Your task to perform on an android device: Show me productivity apps on the Play Store Image 0: 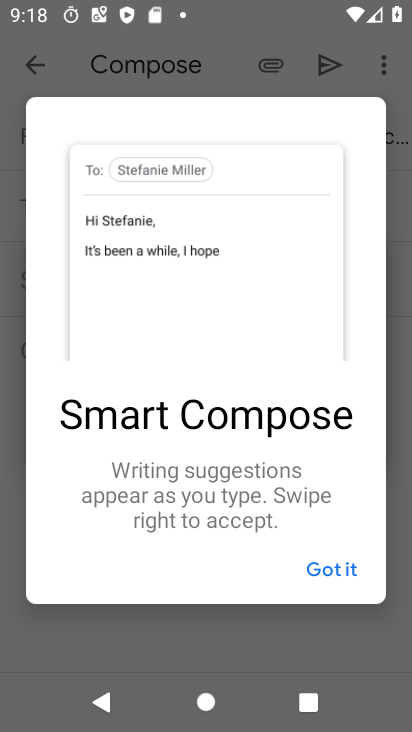
Step 0: press home button
Your task to perform on an android device: Show me productivity apps on the Play Store Image 1: 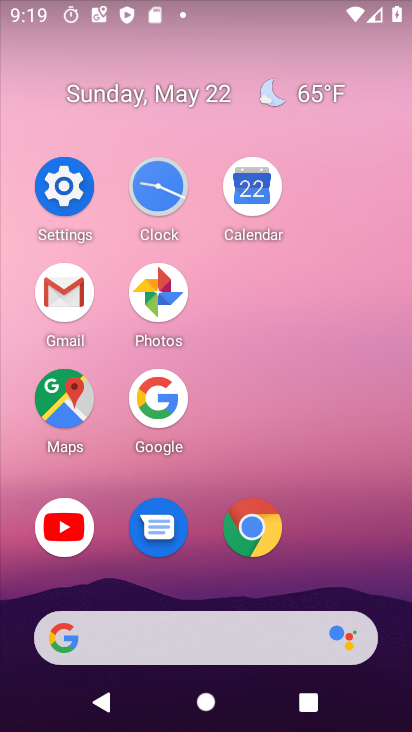
Step 1: drag from (323, 544) to (268, 235)
Your task to perform on an android device: Show me productivity apps on the Play Store Image 2: 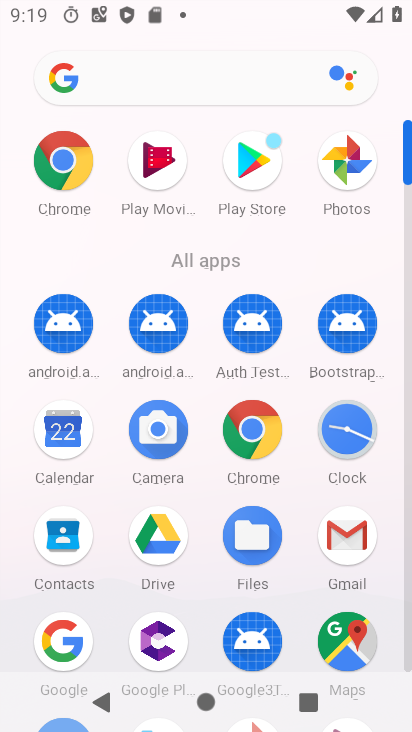
Step 2: drag from (239, 626) to (244, 253)
Your task to perform on an android device: Show me productivity apps on the Play Store Image 3: 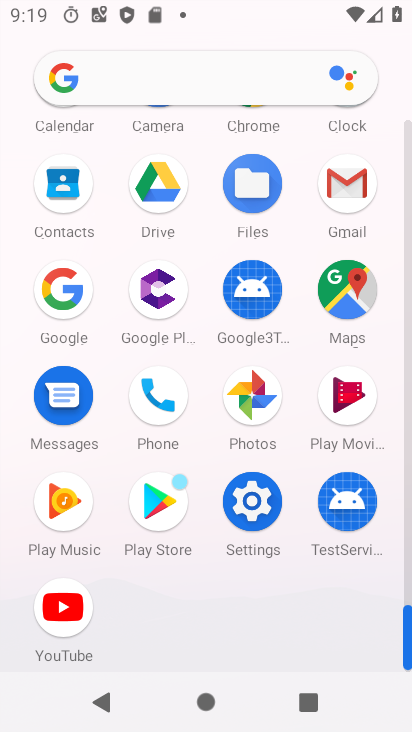
Step 3: drag from (162, 515) to (224, 316)
Your task to perform on an android device: Show me productivity apps on the Play Store Image 4: 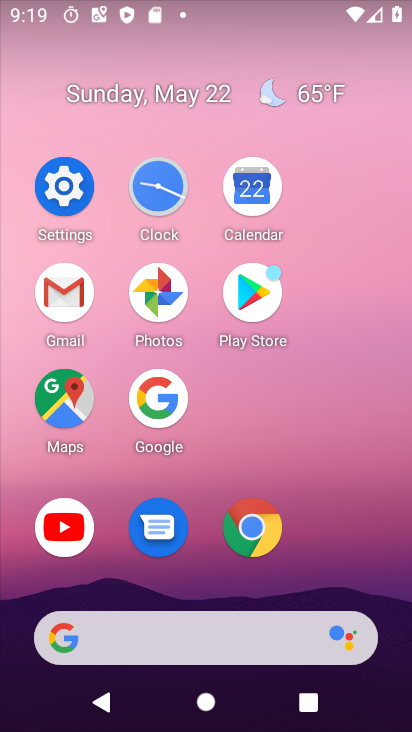
Step 4: click (235, 306)
Your task to perform on an android device: Show me productivity apps on the Play Store Image 5: 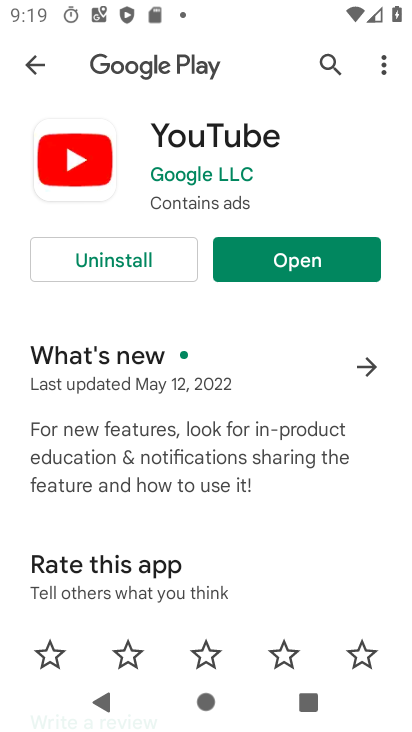
Step 5: click (26, 59)
Your task to perform on an android device: Show me productivity apps on the Play Store Image 6: 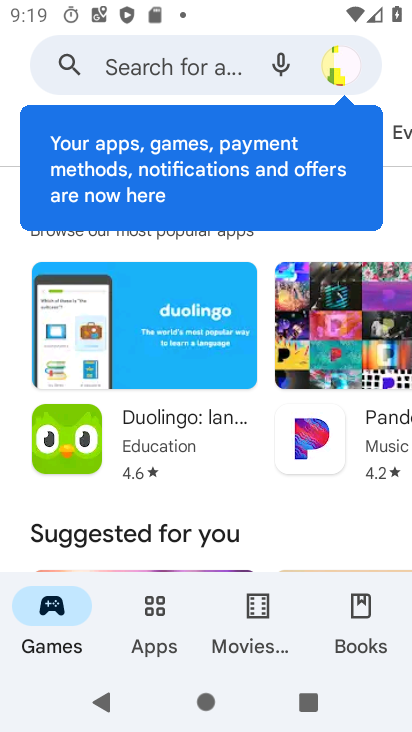
Step 6: click (143, 600)
Your task to perform on an android device: Show me productivity apps on the Play Store Image 7: 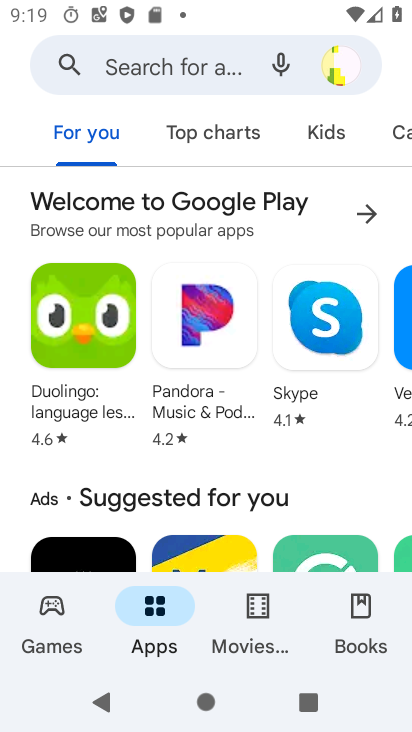
Step 7: drag from (320, 140) to (17, 148)
Your task to perform on an android device: Show me productivity apps on the Play Store Image 8: 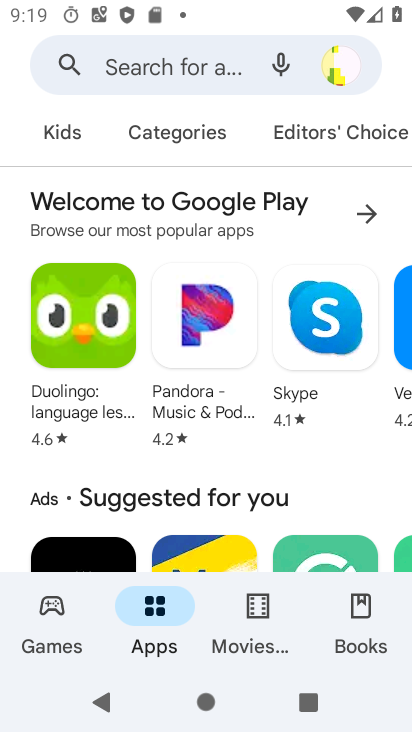
Step 8: click (181, 130)
Your task to perform on an android device: Show me productivity apps on the Play Store Image 9: 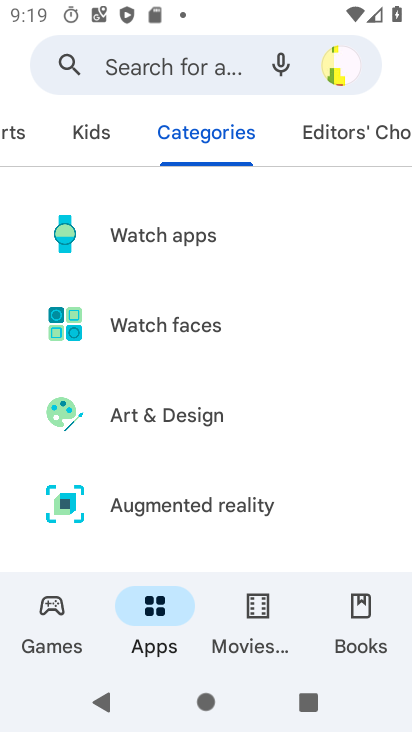
Step 9: drag from (264, 539) to (290, 79)
Your task to perform on an android device: Show me productivity apps on the Play Store Image 10: 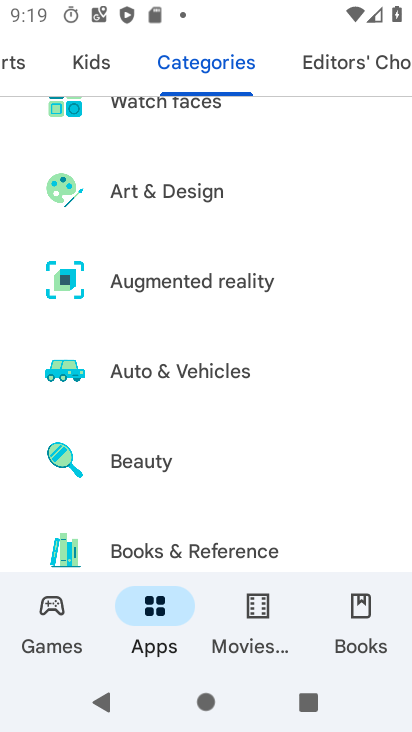
Step 10: drag from (247, 515) to (255, 77)
Your task to perform on an android device: Show me productivity apps on the Play Store Image 11: 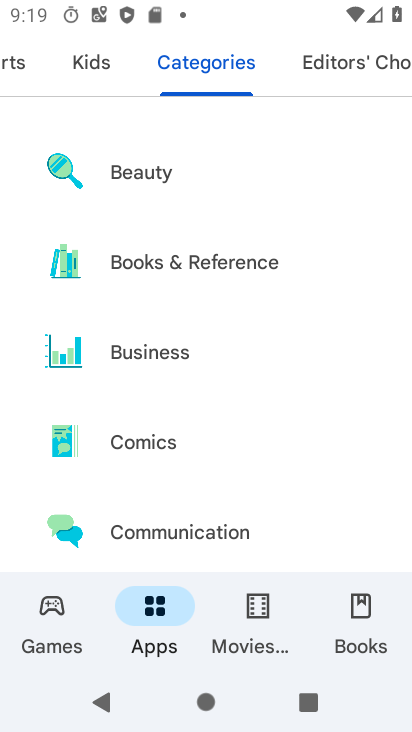
Step 11: drag from (260, 476) to (255, 86)
Your task to perform on an android device: Show me productivity apps on the Play Store Image 12: 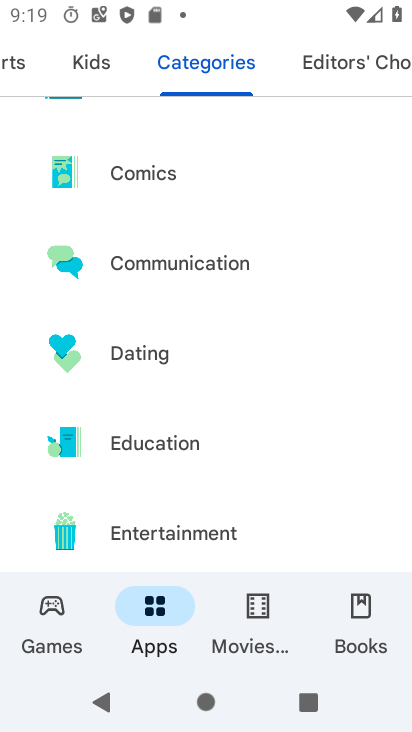
Step 12: drag from (233, 476) to (268, 110)
Your task to perform on an android device: Show me productivity apps on the Play Store Image 13: 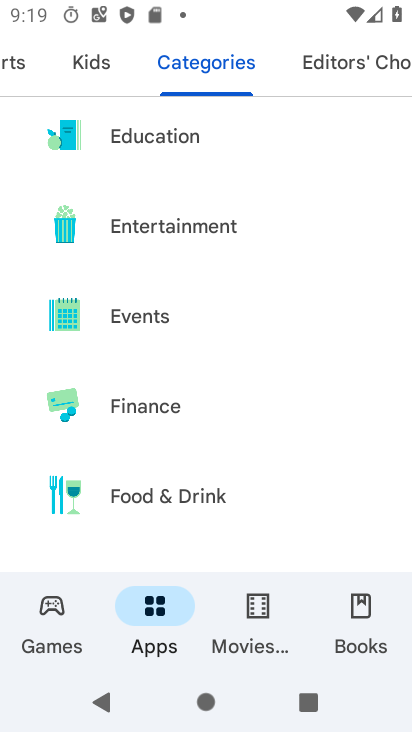
Step 13: drag from (295, 500) to (299, 70)
Your task to perform on an android device: Show me productivity apps on the Play Store Image 14: 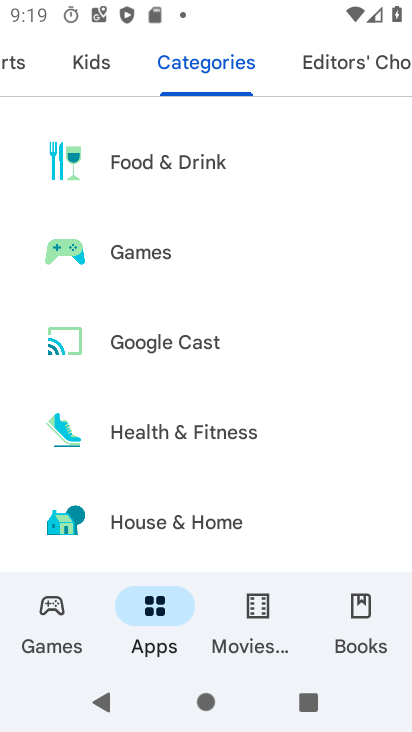
Step 14: drag from (259, 456) to (259, 70)
Your task to perform on an android device: Show me productivity apps on the Play Store Image 15: 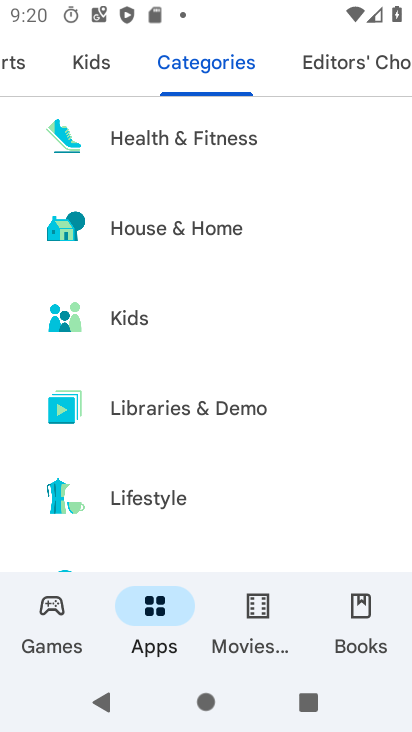
Step 15: drag from (234, 481) to (240, 97)
Your task to perform on an android device: Show me productivity apps on the Play Store Image 16: 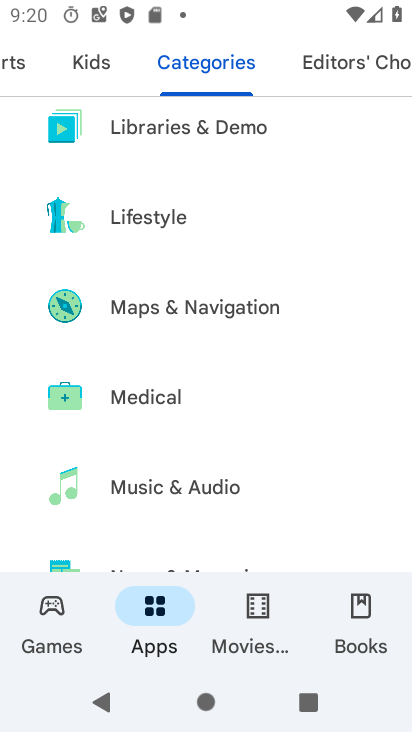
Step 16: drag from (247, 252) to (239, 156)
Your task to perform on an android device: Show me productivity apps on the Play Store Image 17: 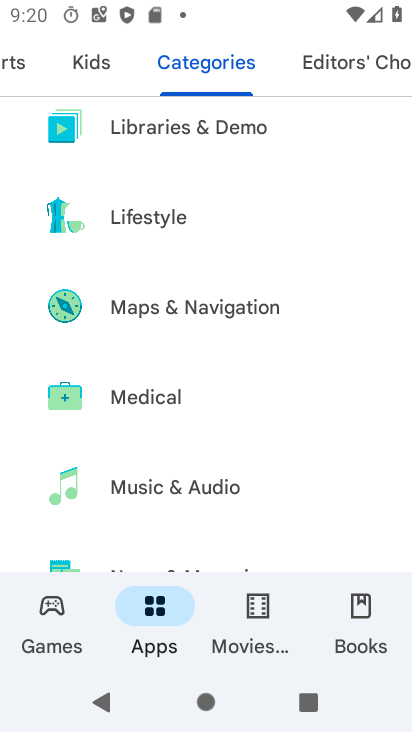
Step 17: drag from (248, 483) to (261, 121)
Your task to perform on an android device: Show me productivity apps on the Play Store Image 18: 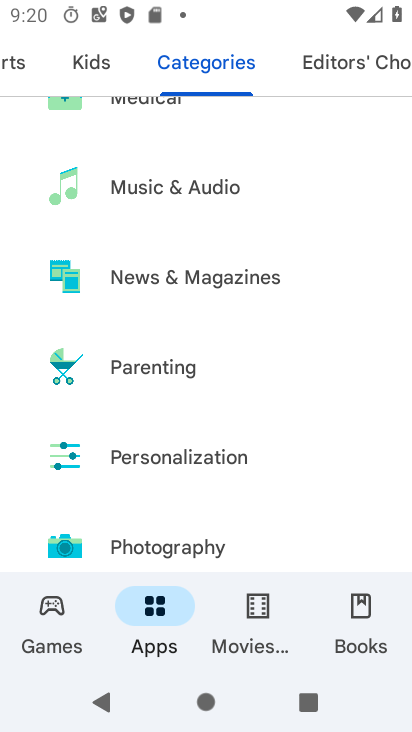
Step 18: drag from (209, 507) to (247, 170)
Your task to perform on an android device: Show me productivity apps on the Play Store Image 19: 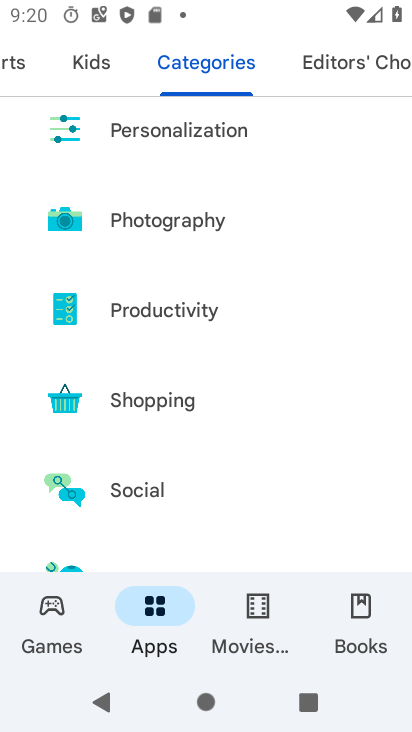
Step 19: click (224, 299)
Your task to perform on an android device: Show me productivity apps on the Play Store Image 20: 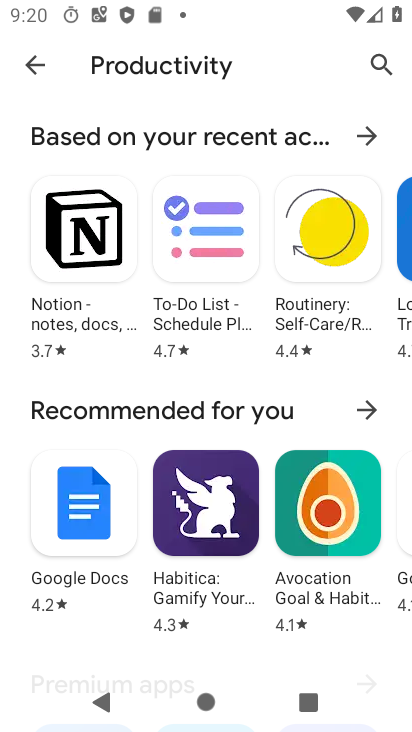
Step 20: task complete